Your task to perform on an android device: open the mobile data screen to see how much data has been used Image 0: 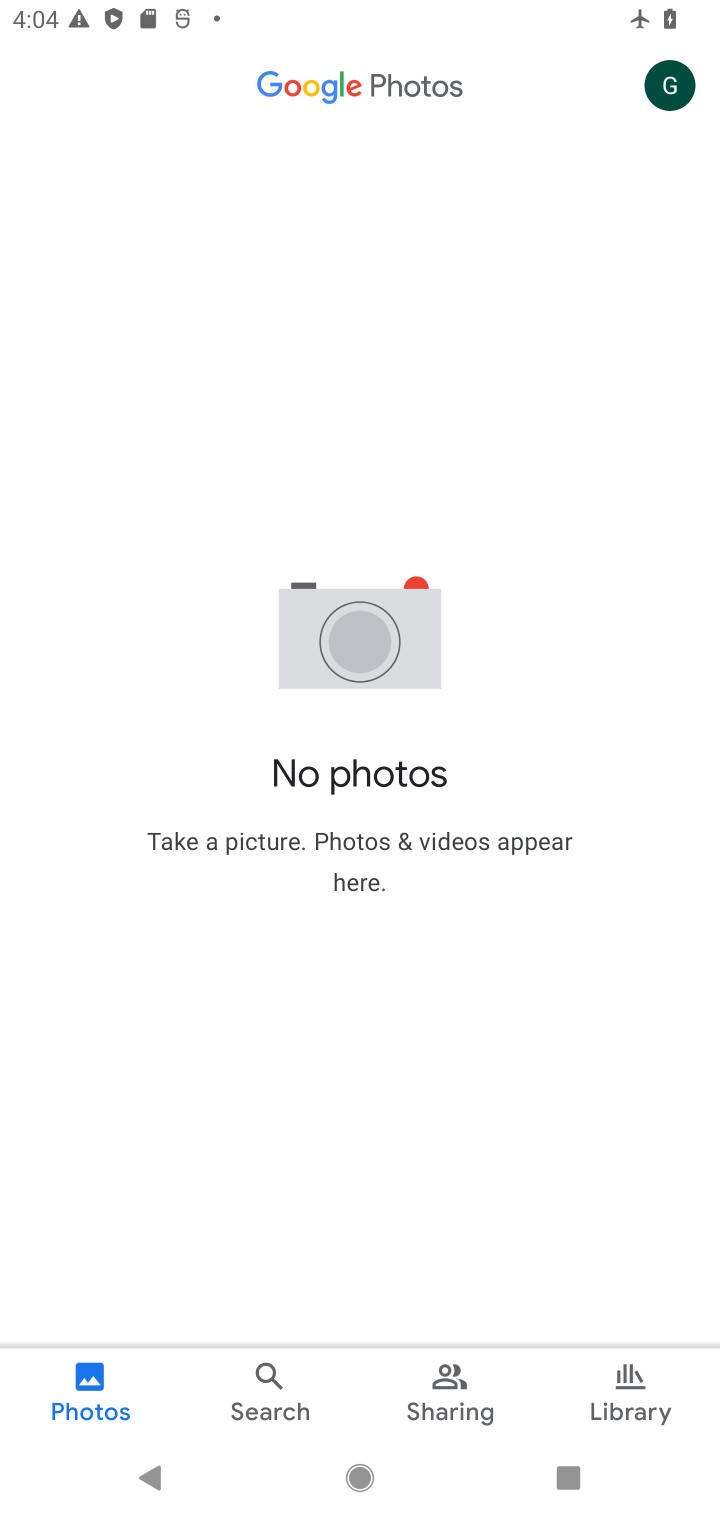
Step 0: drag from (258, 869) to (209, 1465)
Your task to perform on an android device: open the mobile data screen to see how much data has been used Image 1: 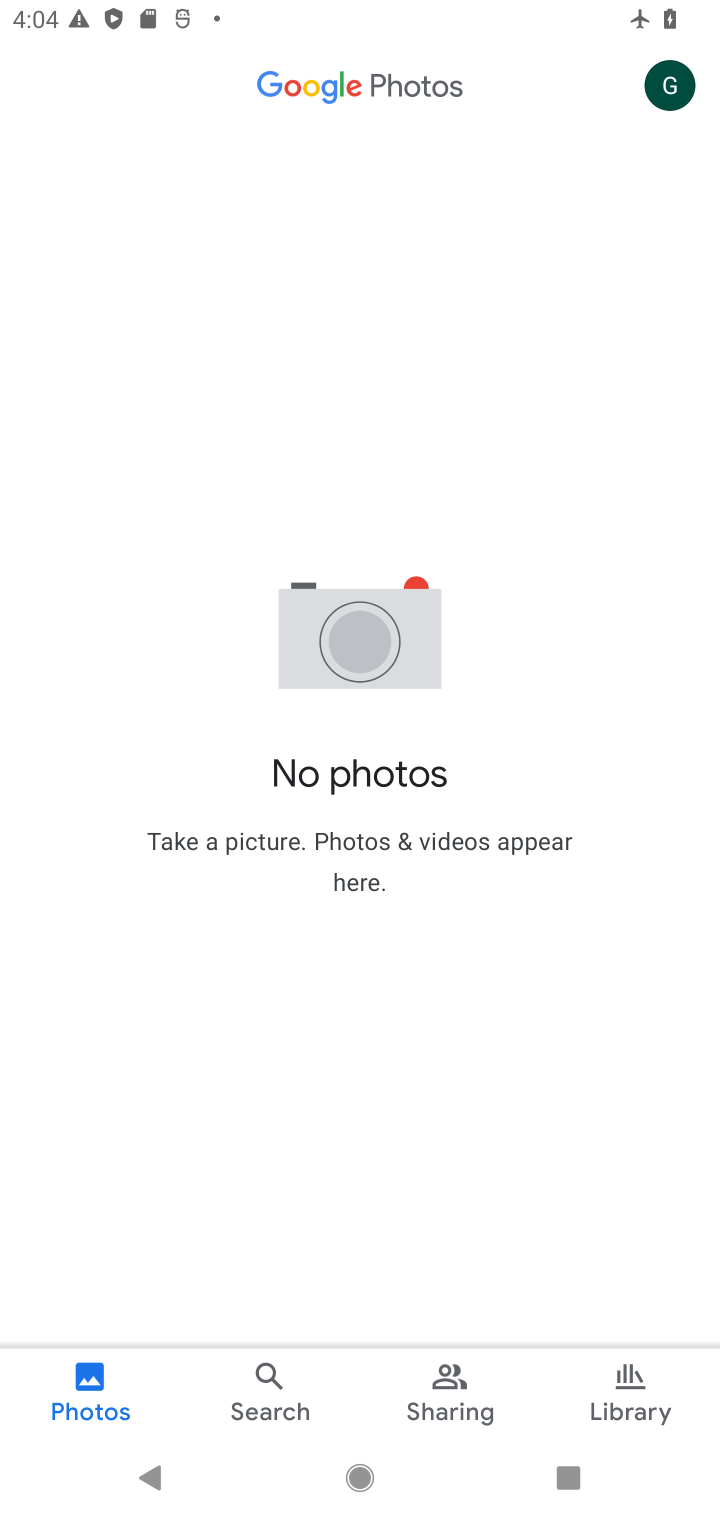
Step 1: drag from (269, 14) to (116, 948)
Your task to perform on an android device: open the mobile data screen to see how much data has been used Image 2: 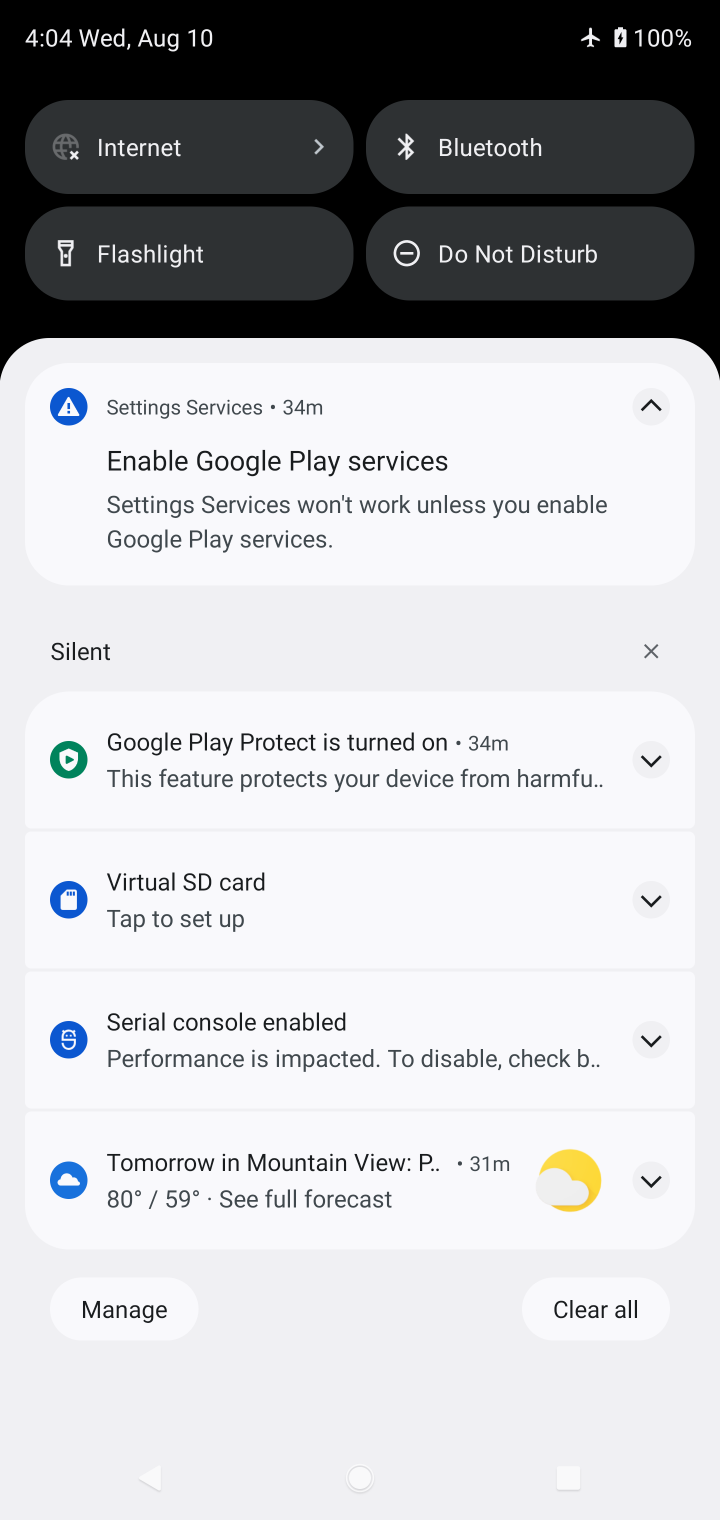
Step 2: click (254, 145)
Your task to perform on an android device: open the mobile data screen to see how much data has been used Image 3: 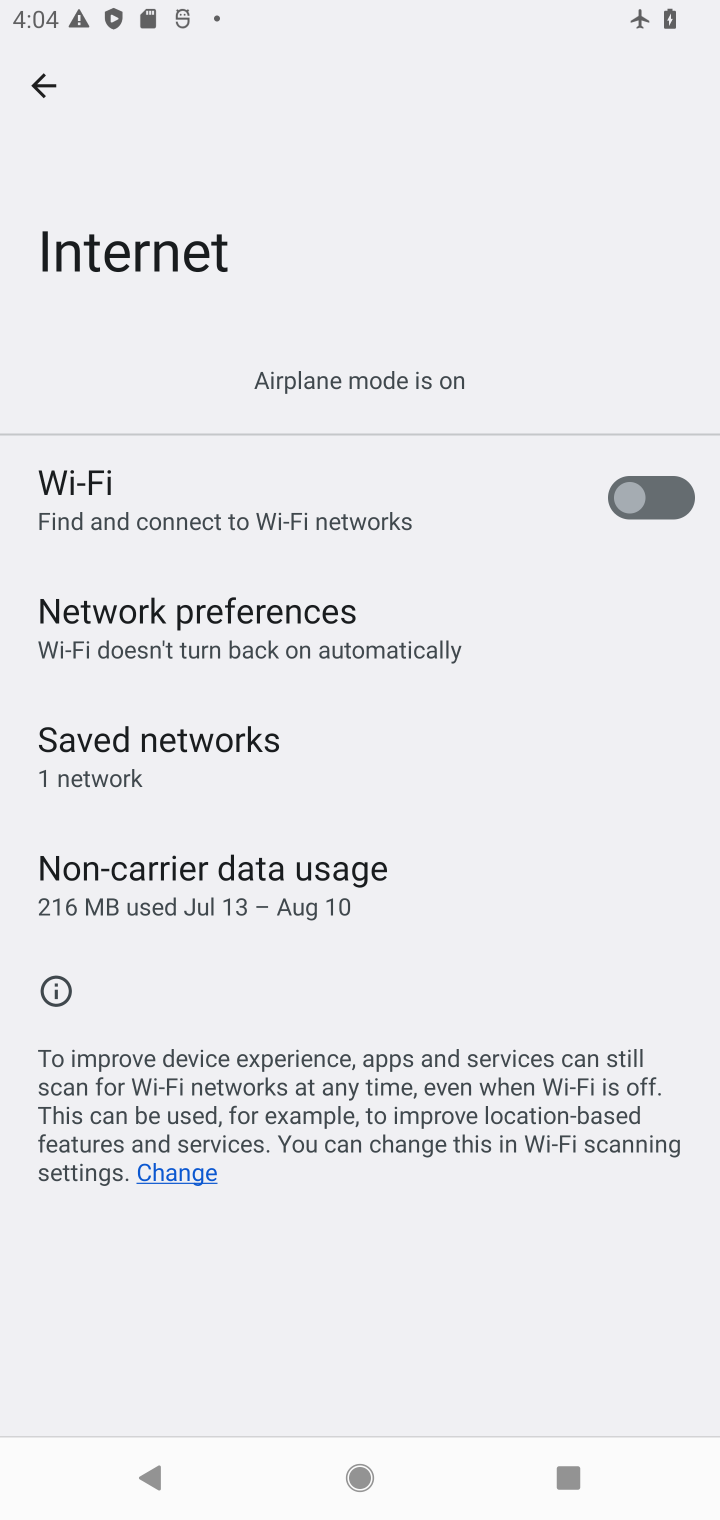
Step 3: click (229, 896)
Your task to perform on an android device: open the mobile data screen to see how much data has been used Image 4: 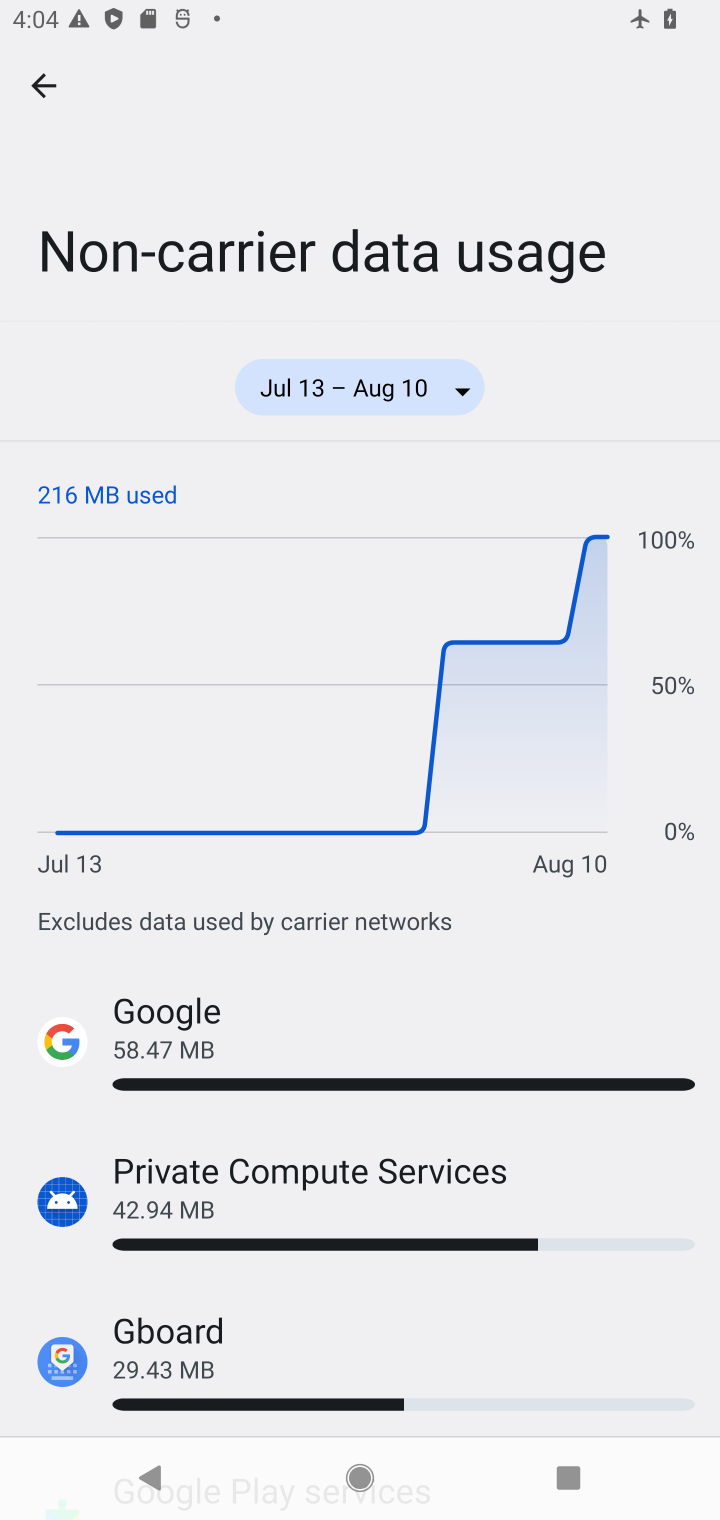
Step 4: task complete